Your task to perform on an android device: Set the phone to "Do not disturb". Image 0: 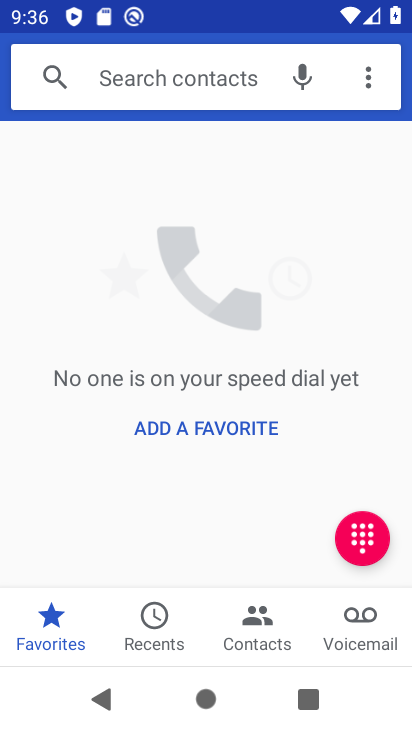
Step 0: press home button
Your task to perform on an android device: Set the phone to "Do not disturb". Image 1: 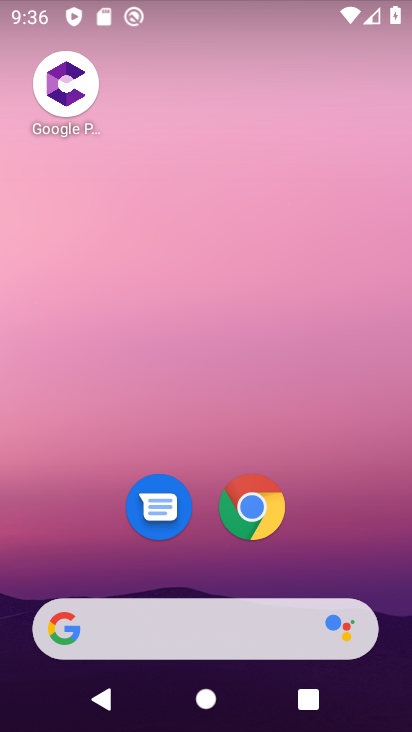
Step 1: drag from (312, 549) to (379, 156)
Your task to perform on an android device: Set the phone to "Do not disturb". Image 2: 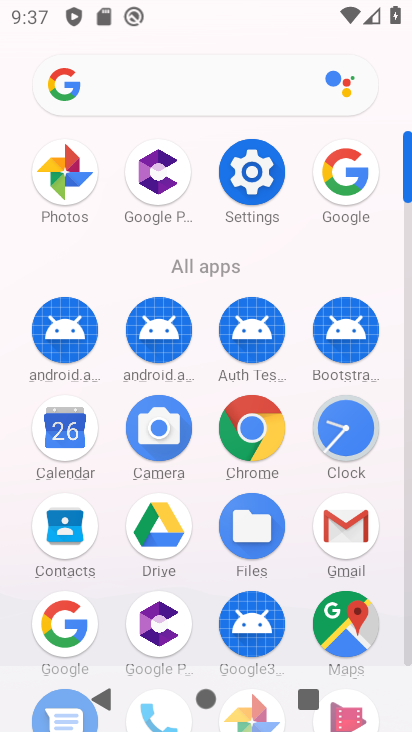
Step 2: click (252, 173)
Your task to perform on an android device: Set the phone to "Do not disturb". Image 3: 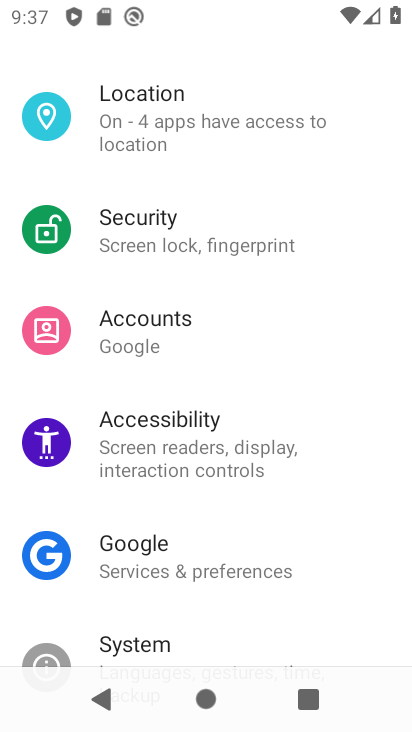
Step 3: drag from (192, 515) to (243, 410)
Your task to perform on an android device: Set the phone to "Do not disturb". Image 4: 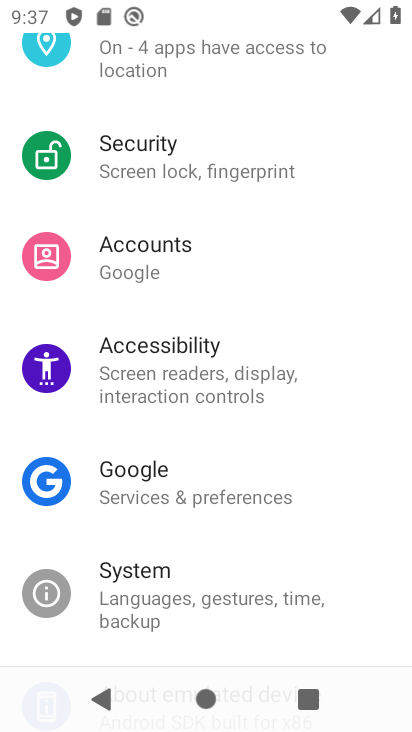
Step 4: drag from (242, 301) to (245, 418)
Your task to perform on an android device: Set the phone to "Do not disturb". Image 5: 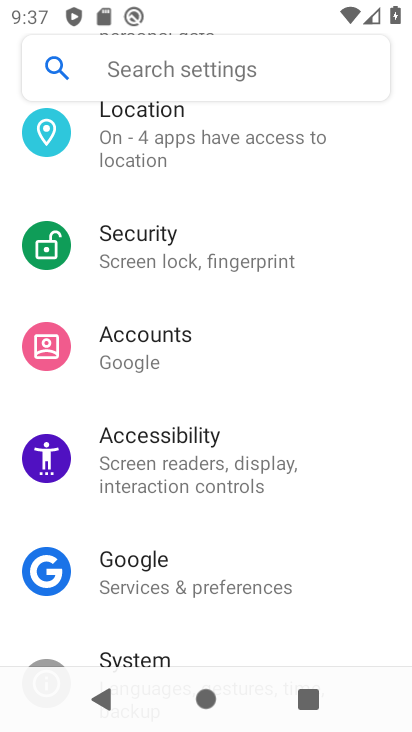
Step 5: drag from (213, 217) to (233, 381)
Your task to perform on an android device: Set the phone to "Do not disturb". Image 6: 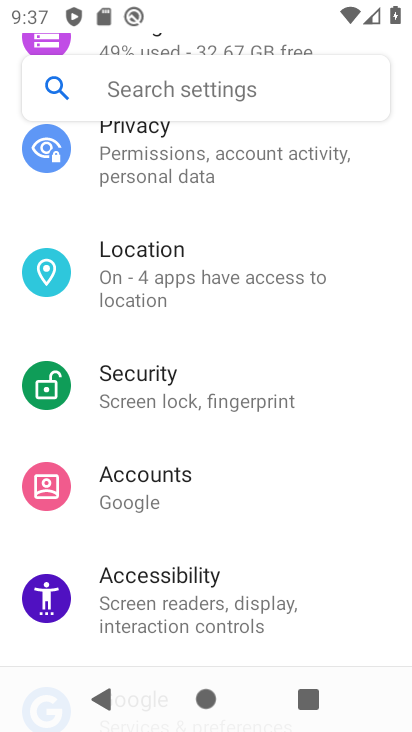
Step 6: drag from (252, 244) to (263, 372)
Your task to perform on an android device: Set the phone to "Do not disturb". Image 7: 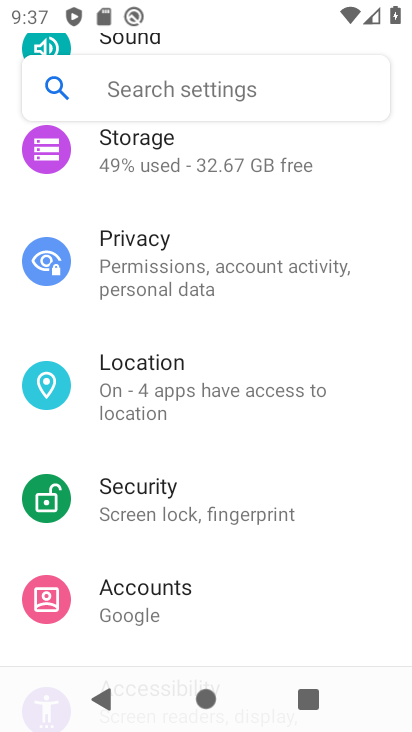
Step 7: drag from (223, 233) to (226, 365)
Your task to perform on an android device: Set the phone to "Do not disturb". Image 8: 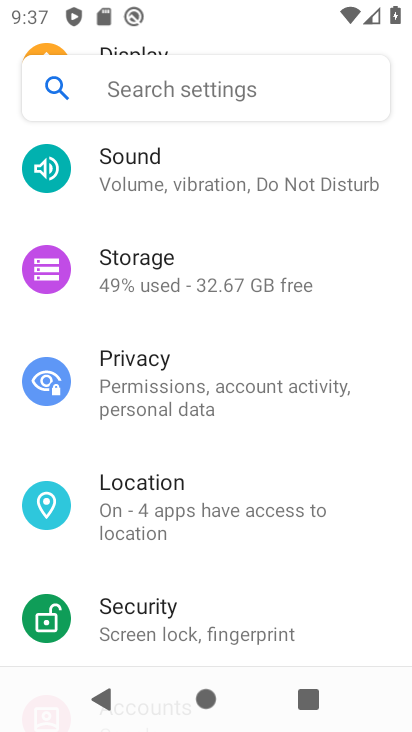
Step 8: drag from (220, 239) to (281, 382)
Your task to perform on an android device: Set the phone to "Do not disturb". Image 9: 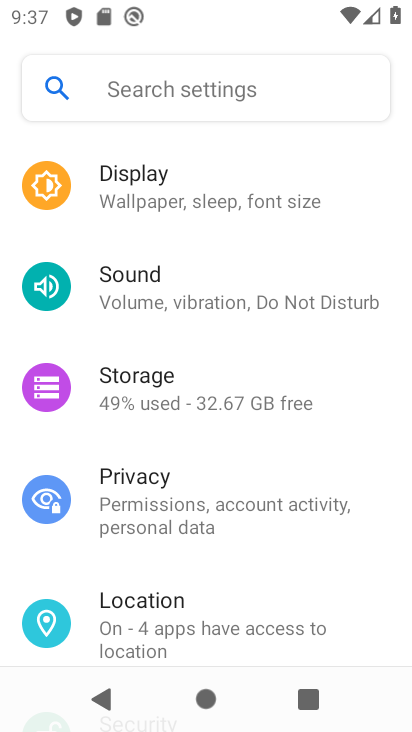
Step 9: click (244, 291)
Your task to perform on an android device: Set the phone to "Do not disturb". Image 10: 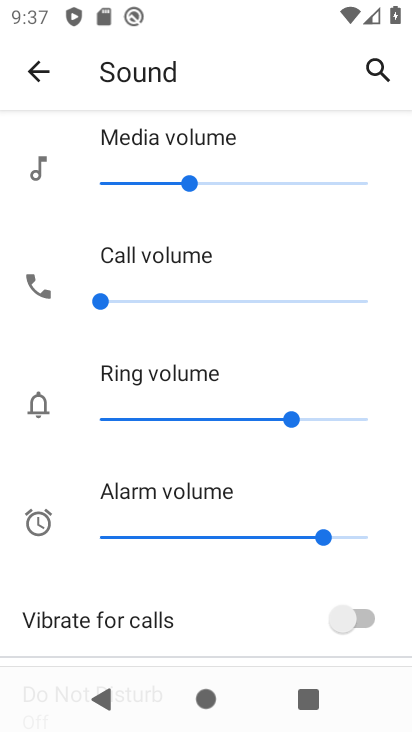
Step 10: drag from (171, 576) to (188, 473)
Your task to perform on an android device: Set the phone to "Do not disturb". Image 11: 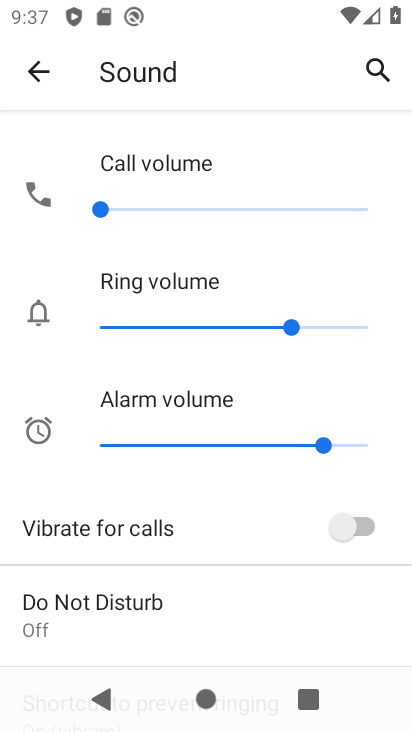
Step 11: click (113, 608)
Your task to perform on an android device: Set the phone to "Do not disturb". Image 12: 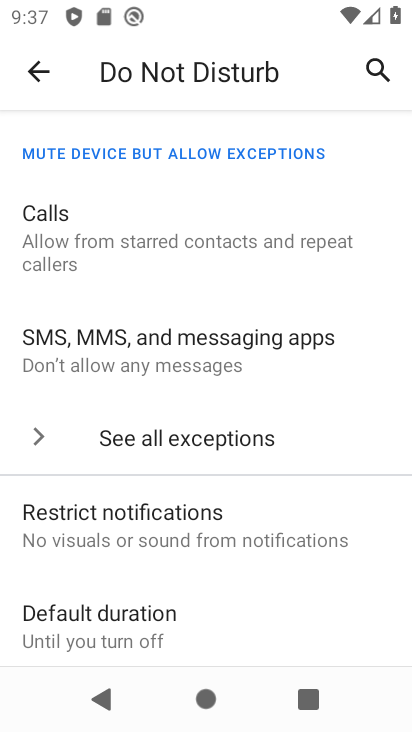
Step 12: drag from (204, 622) to (222, 483)
Your task to perform on an android device: Set the phone to "Do not disturb". Image 13: 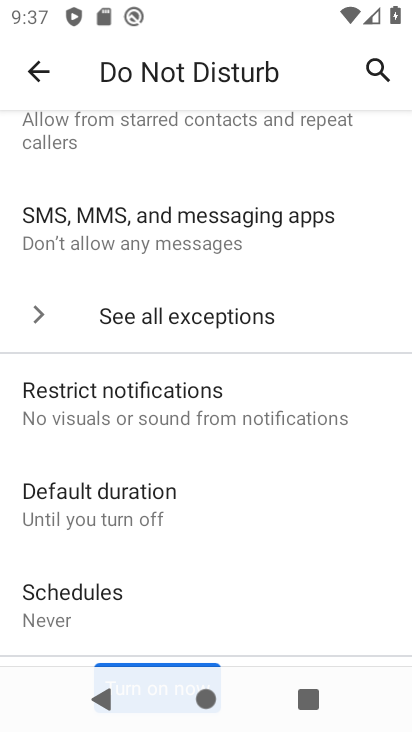
Step 13: drag from (212, 581) to (265, 354)
Your task to perform on an android device: Set the phone to "Do not disturb". Image 14: 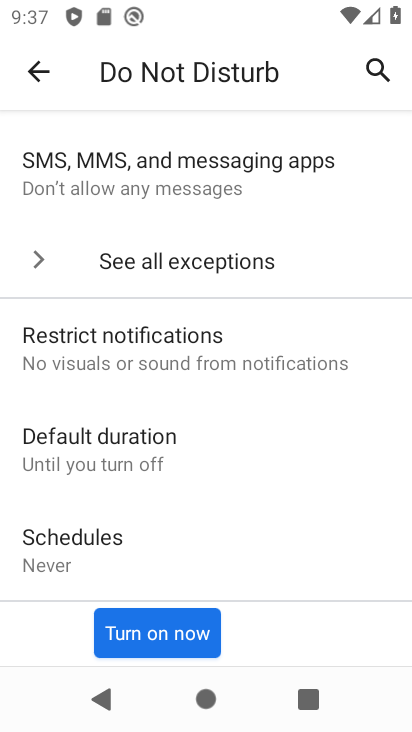
Step 14: click (144, 619)
Your task to perform on an android device: Set the phone to "Do not disturb". Image 15: 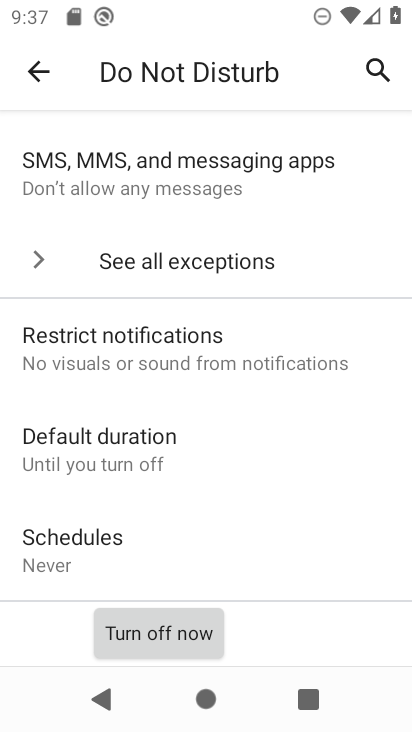
Step 15: task complete